Your task to perform on an android device: open app "Speedtest by Ookla" Image 0: 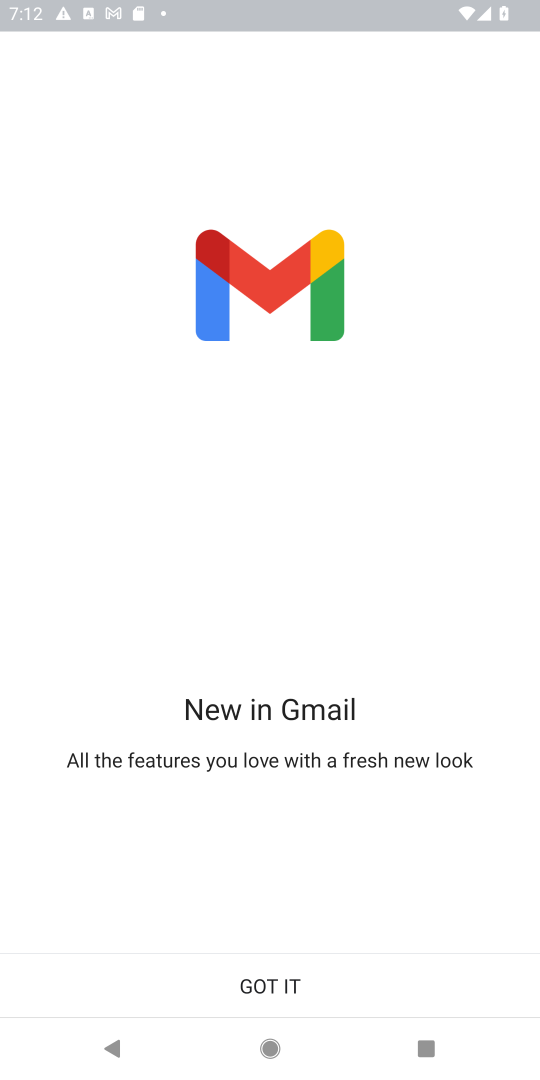
Step 0: press home button
Your task to perform on an android device: open app "Speedtest by Ookla" Image 1: 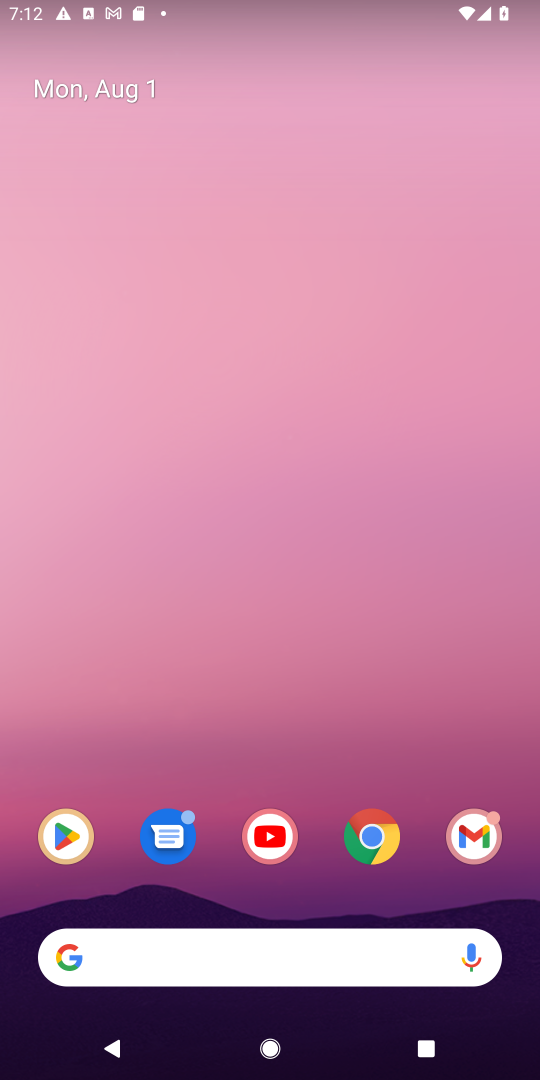
Step 1: click (68, 837)
Your task to perform on an android device: open app "Speedtest by Ookla" Image 2: 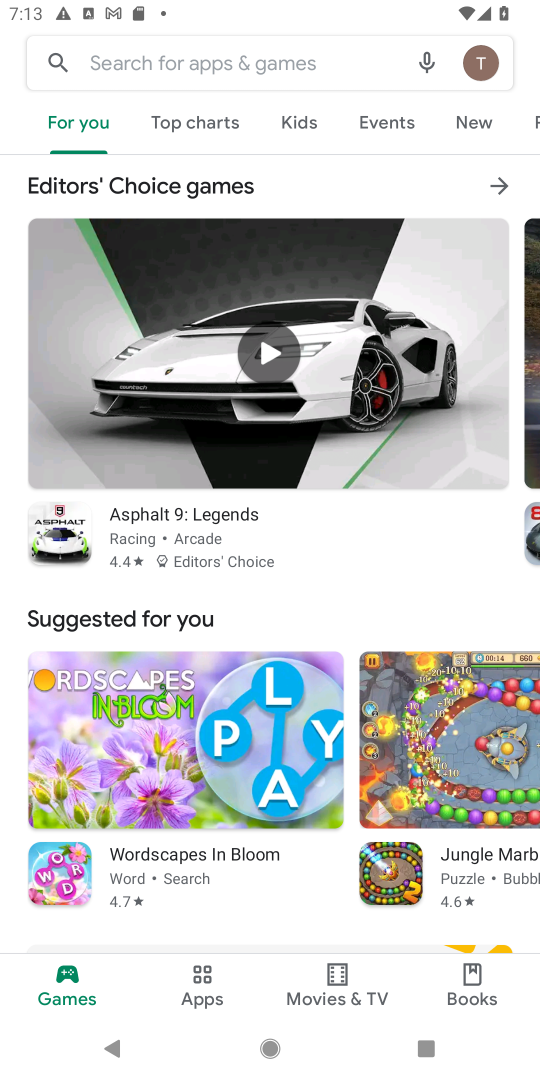
Step 2: click (356, 53)
Your task to perform on an android device: open app "Speedtest by Ookla" Image 3: 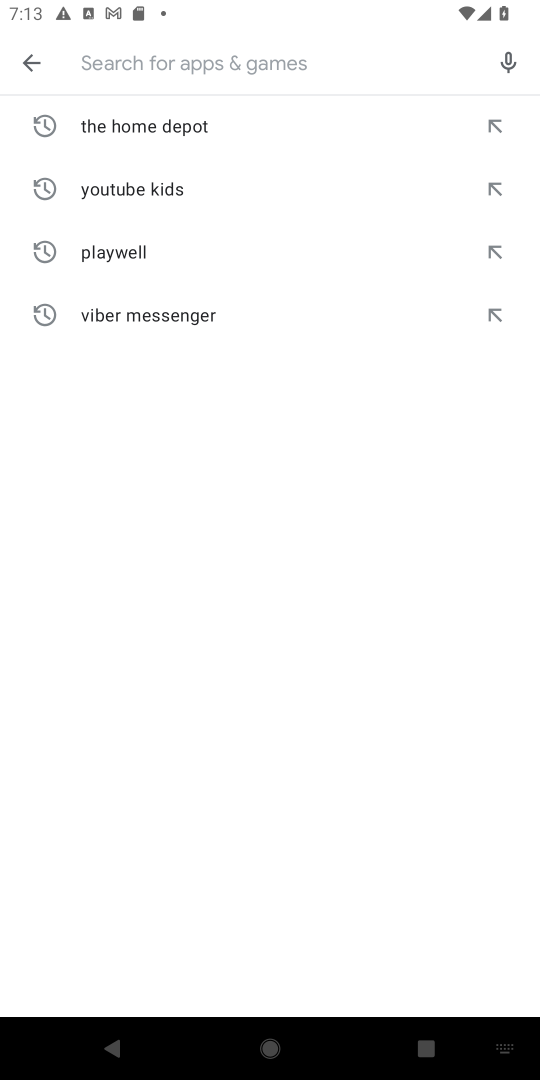
Step 3: type "Speedtest by Ookla"
Your task to perform on an android device: open app "Speedtest by Ookla" Image 4: 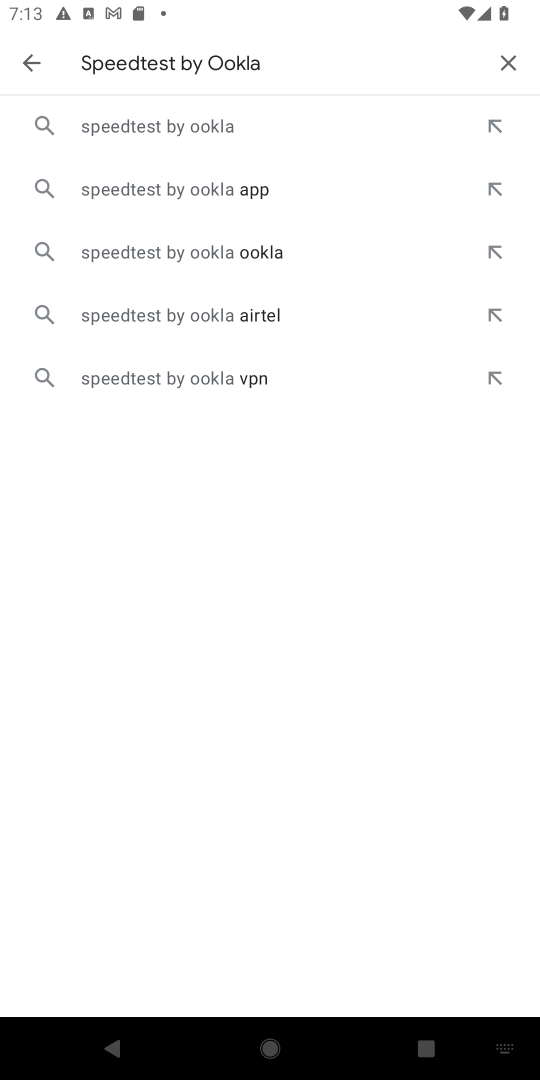
Step 4: click (217, 118)
Your task to perform on an android device: open app "Speedtest by Ookla" Image 5: 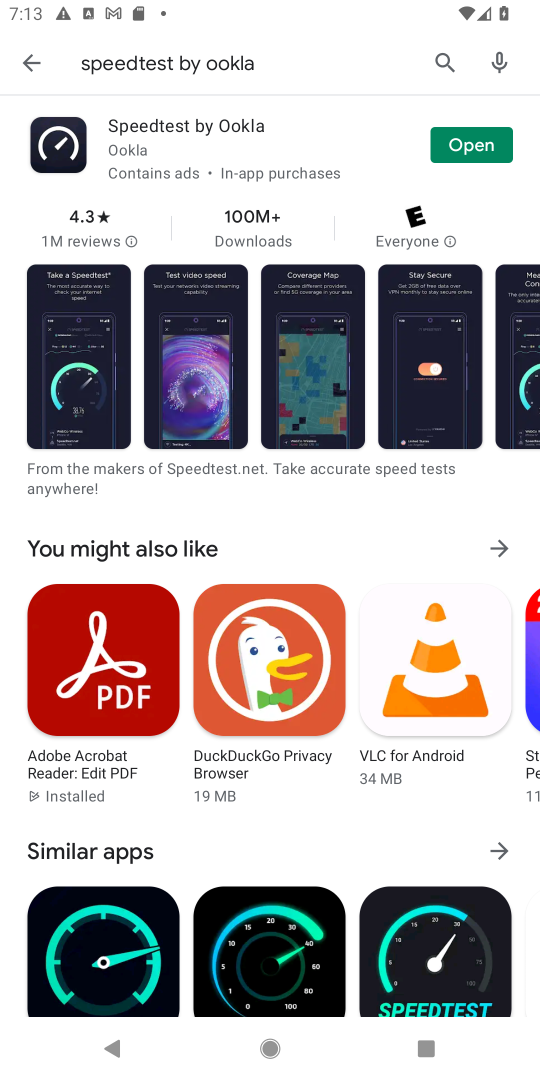
Step 5: click (476, 143)
Your task to perform on an android device: open app "Speedtest by Ookla" Image 6: 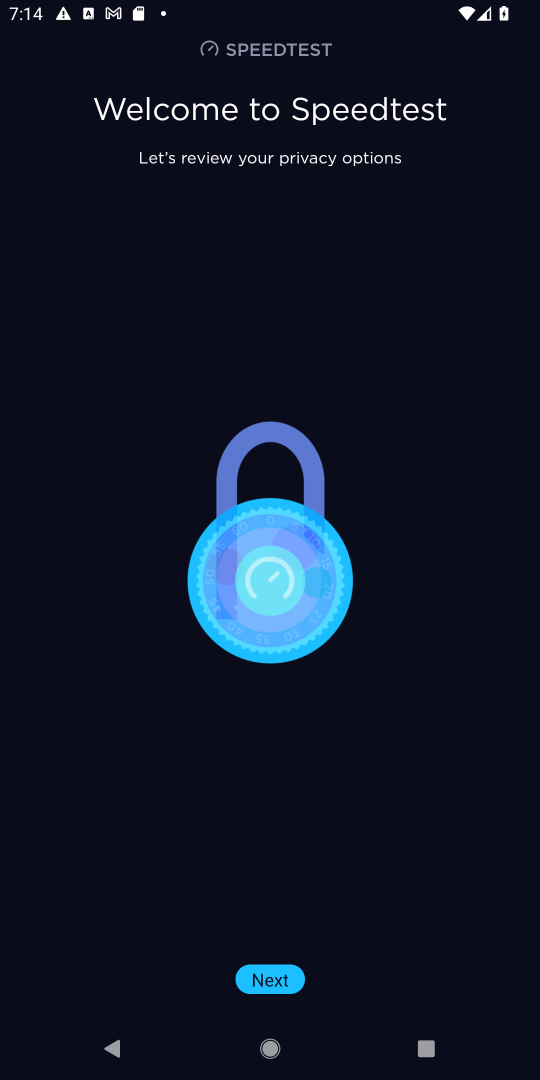
Step 6: task complete